Your task to perform on an android device: toggle pop-ups in chrome Image 0: 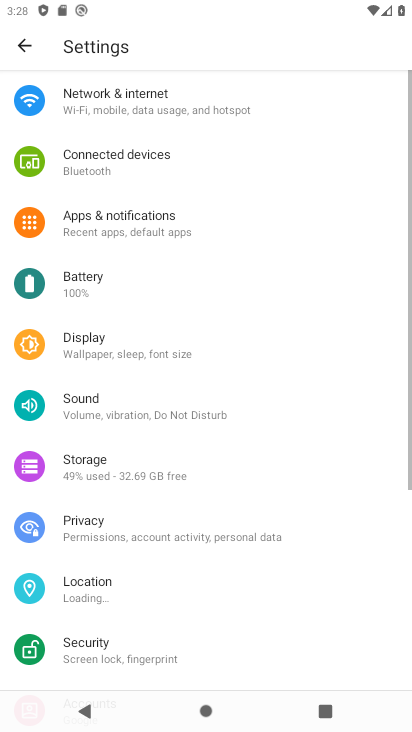
Step 0: press home button
Your task to perform on an android device: toggle pop-ups in chrome Image 1: 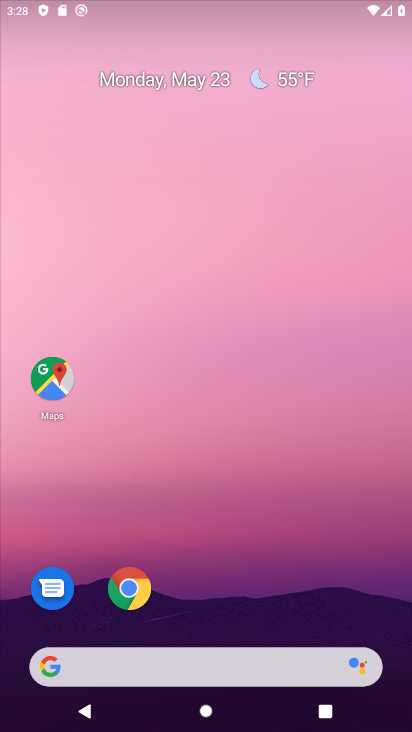
Step 1: click (132, 599)
Your task to perform on an android device: toggle pop-ups in chrome Image 2: 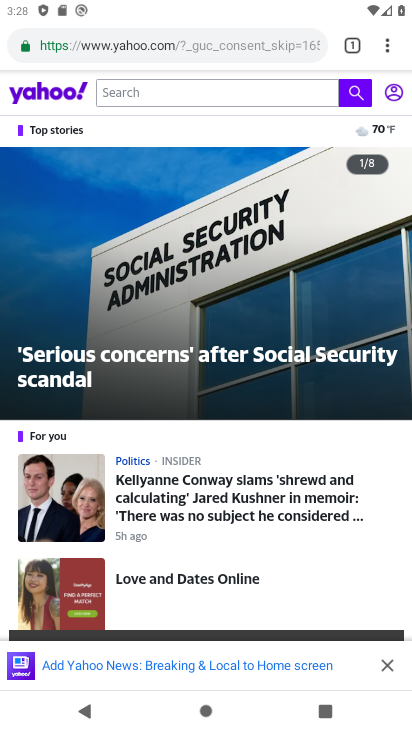
Step 2: click (385, 42)
Your task to perform on an android device: toggle pop-ups in chrome Image 3: 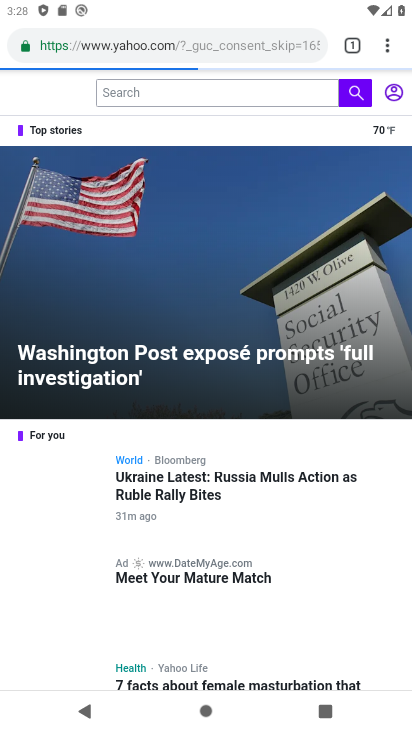
Step 3: click (382, 40)
Your task to perform on an android device: toggle pop-ups in chrome Image 4: 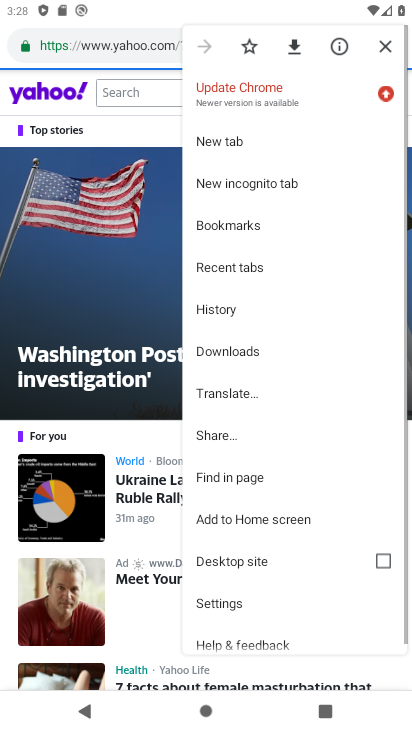
Step 4: click (236, 593)
Your task to perform on an android device: toggle pop-ups in chrome Image 5: 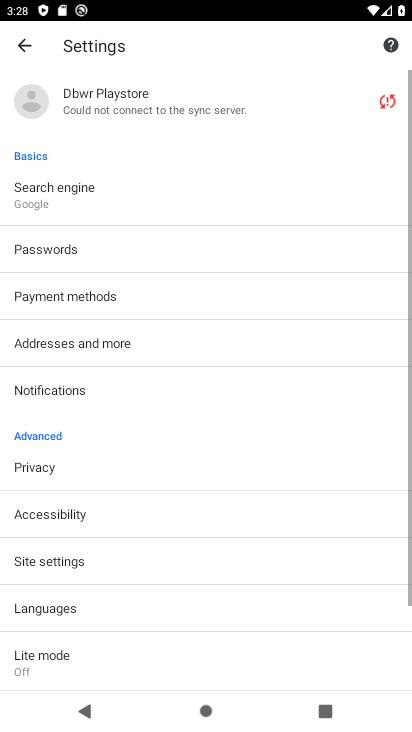
Step 5: drag from (236, 593) to (223, 167)
Your task to perform on an android device: toggle pop-ups in chrome Image 6: 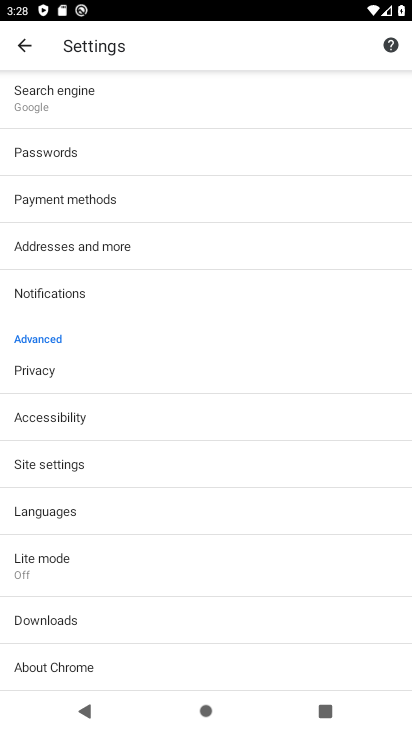
Step 6: drag from (125, 619) to (118, 341)
Your task to perform on an android device: toggle pop-ups in chrome Image 7: 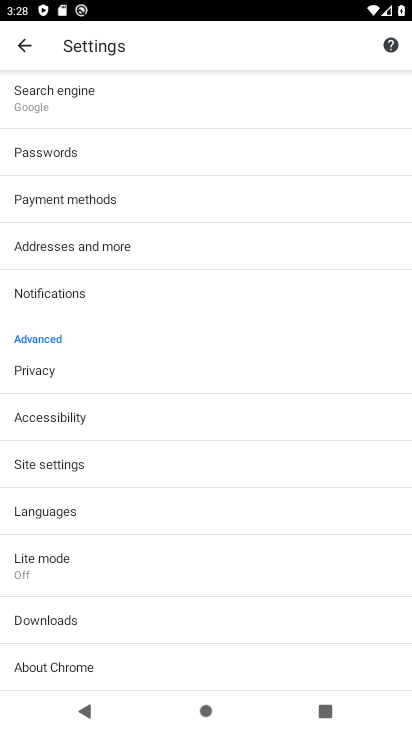
Step 7: click (65, 462)
Your task to perform on an android device: toggle pop-ups in chrome Image 8: 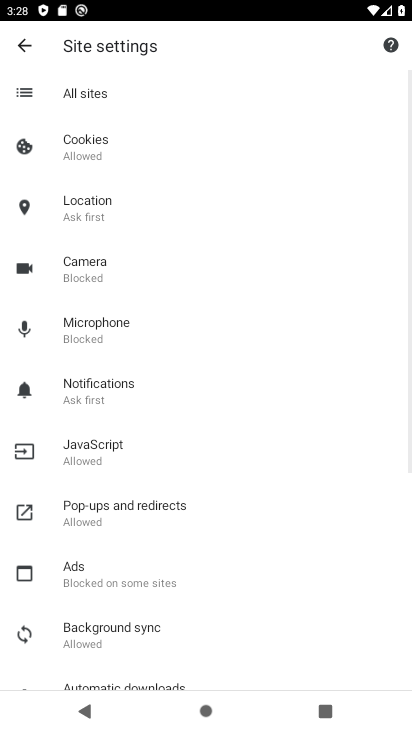
Step 8: click (131, 518)
Your task to perform on an android device: toggle pop-ups in chrome Image 9: 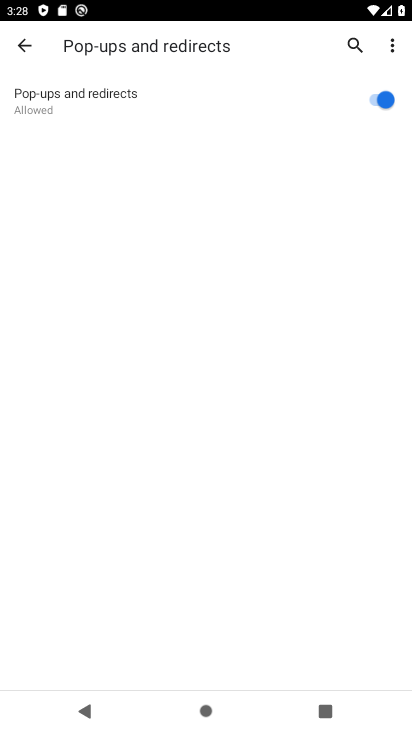
Step 9: click (386, 97)
Your task to perform on an android device: toggle pop-ups in chrome Image 10: 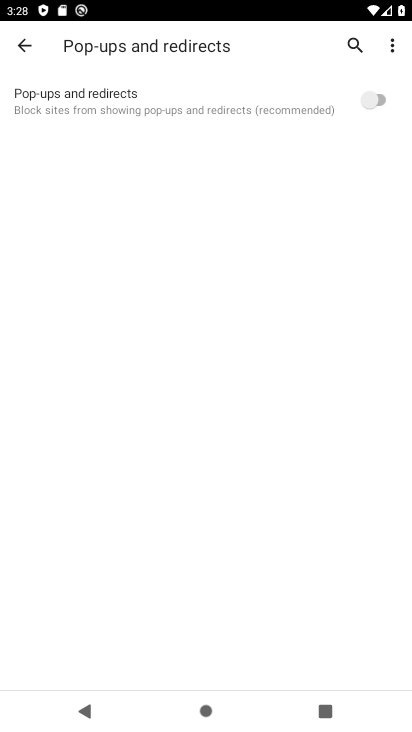
Step 10: task complete